Your task to perform on an android device: turn off wifi Image 0: 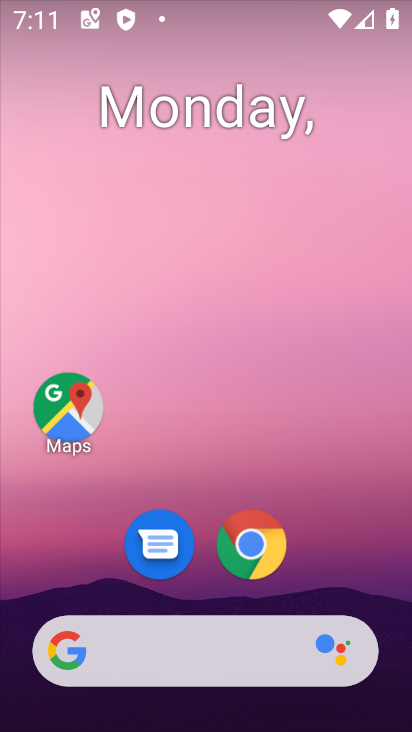
Step 0: click (255, 105)
Your task to perform on an android device: turn off wifi Image 1: 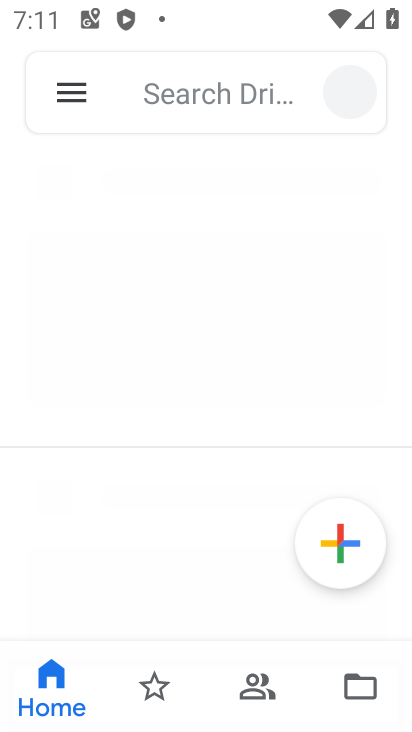
Step 1: click (288, 624)
Your task to perform on an android device: turn off wifi Image 2: 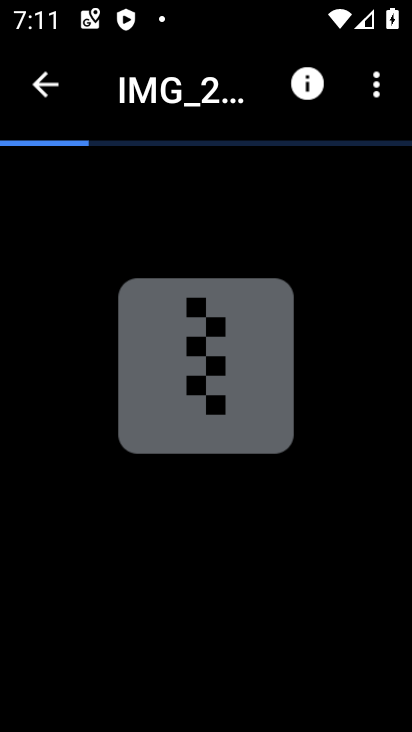
Step 2: press home button
Your task to perform on an android device: turn off wifi Image 3: 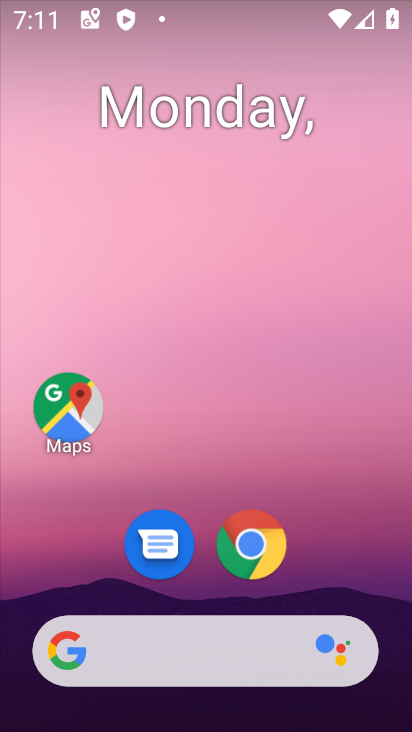
Step 3: drag from (230, 433) to (184, 32)
Your task to perform on an android device: turn off wifi Image 4: 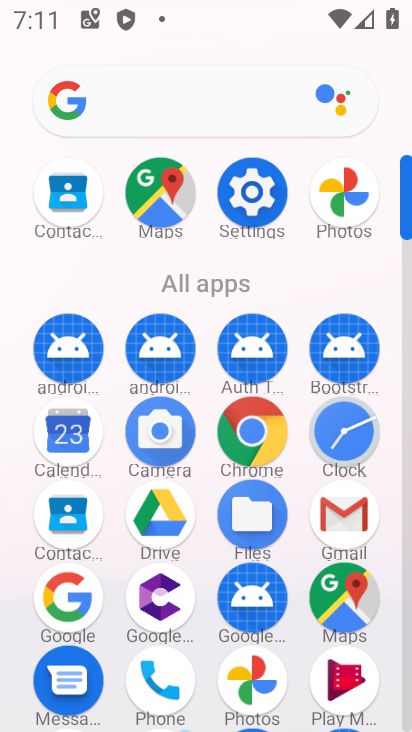
Step 4: click (254, 188)
Your task to perform on an android device: turn off wifi Image 5: 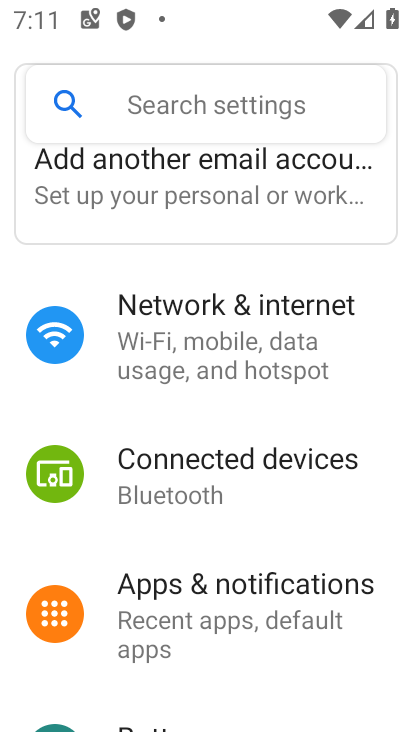
Step 5: click (196, 329)
Your task to perform on an android device: turn off wifi Image 6: 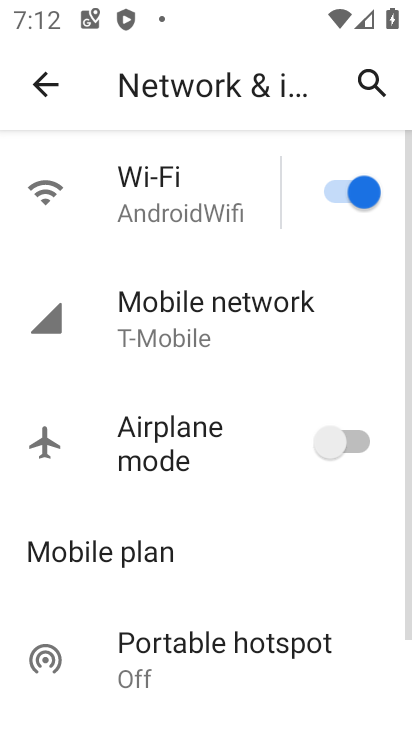
Step 6: click (369, 191)
Your task to perform on an android device: turn off wifi Image 7: 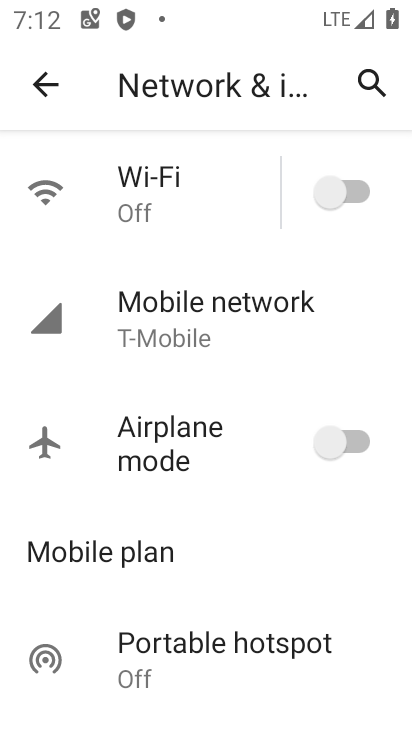
Step 7: task complete